Your task to perform on an android device: Open the calendar app, open the side menu, and click the "Day" option Image 0: 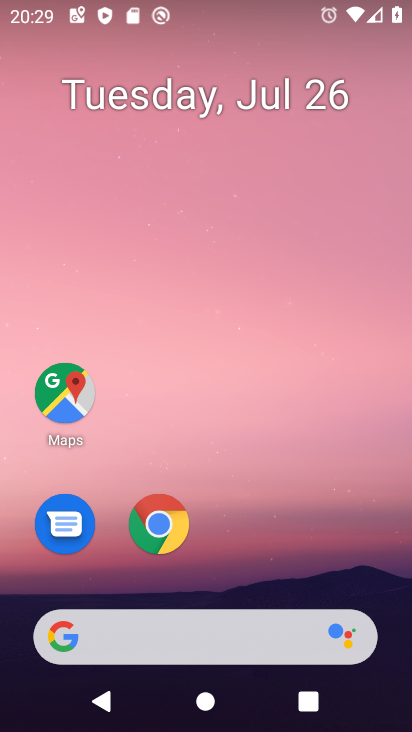
Step 0: drag from (246, 530) to (227, 11)
Your task to perform on an android device: Open the calendar app, open the side menu, and click the "Day" option Image 1: 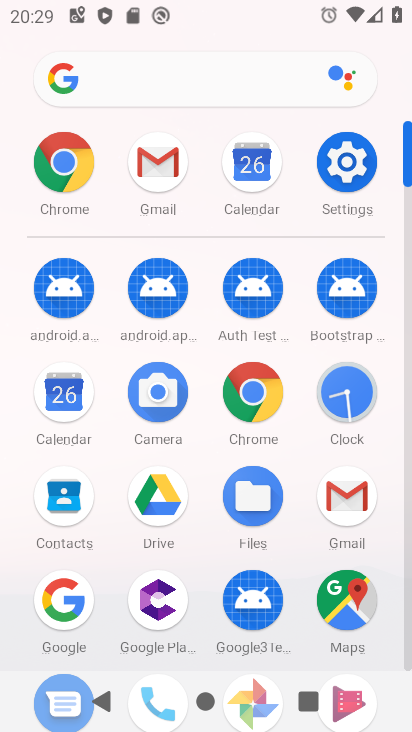
Step 1: click (246, 150)
Your task to perform on an android device: Open the calendar app, open the side menu, and click the "Day" option Image 2: 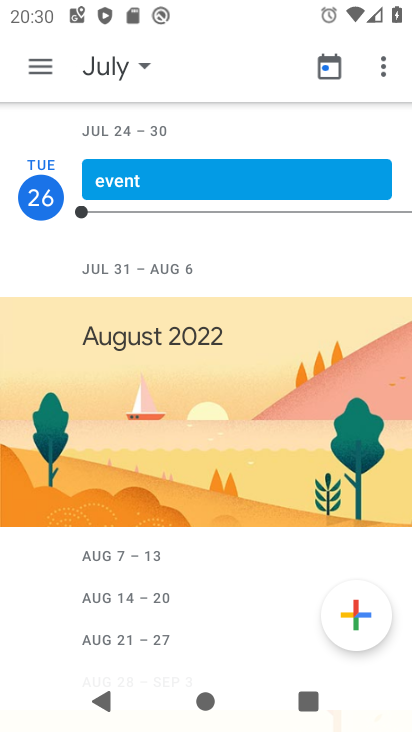
Step 2: click (39, 68)
Your task to perform on an android device: Open the calendar app, open the side menu, and click the "Day" option Image 3: 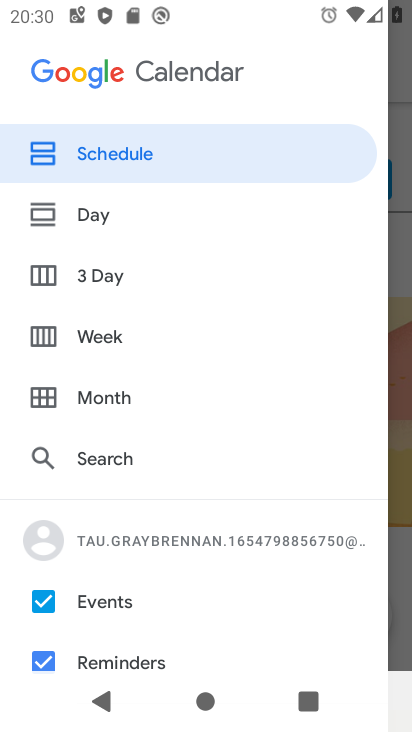
Step 3: click (40, 201)
Your task to perform on an android device: Open the calendar app, open the side menu, and click the "Day" option Image 4: 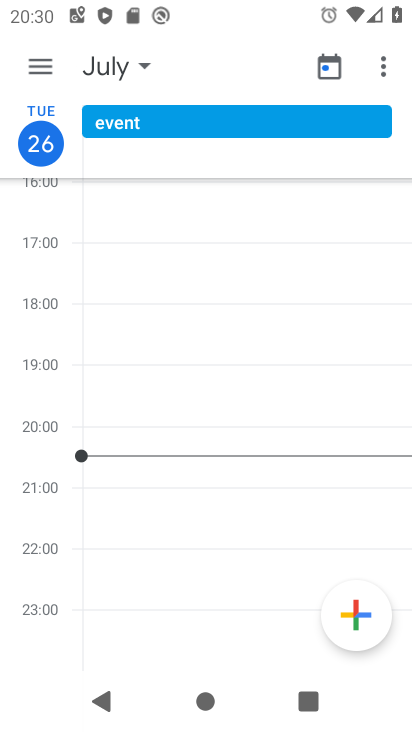
Step 4: task complete